Your task to perform on an android device: all mails in gmail Image 0: 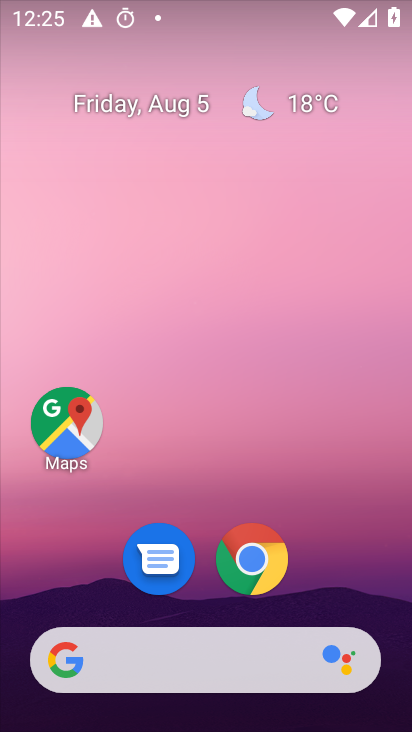
Step 0: drag from (79, 700) to (87, 461)
Your task to perform on an android device: all mails in gmail Image 1: 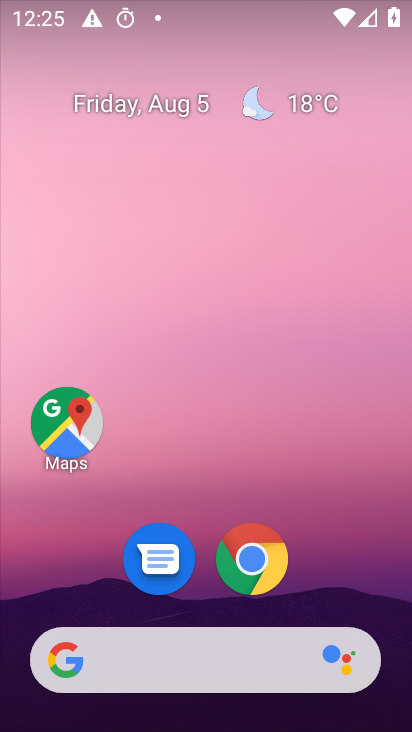
Step 1: drag from (112, 612) to (158, 451)
Your task to perform on an android device: all mails in gmail Image 2: 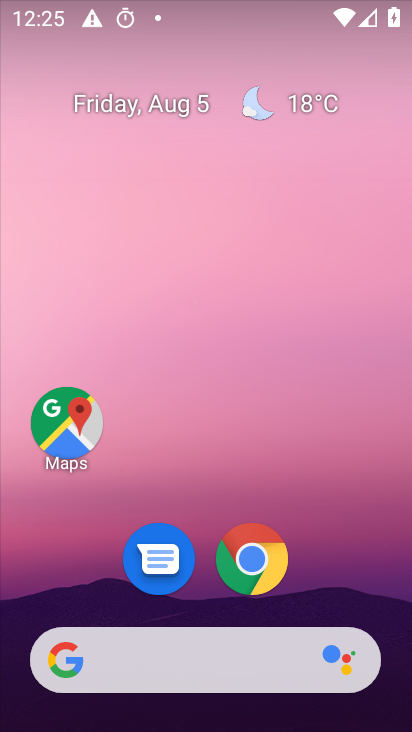
Step 2: click (30, 588)
Your task to perform on an android device: all mails in gmail Image 3: 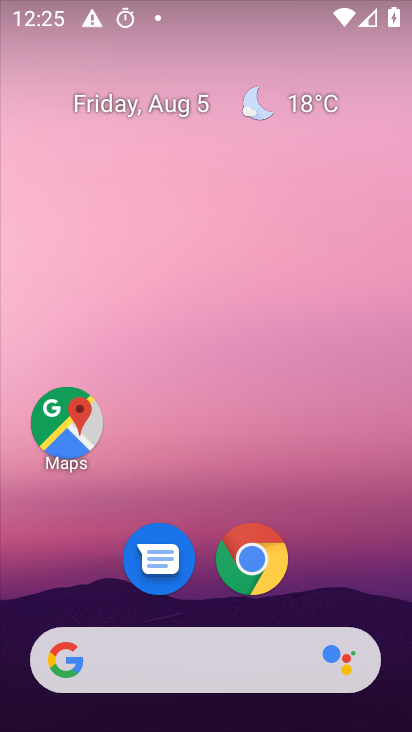
Step 3: drag from (30, 588) to (243, 56)
Your task to perform on an android device: all mails in gmail Image 4: 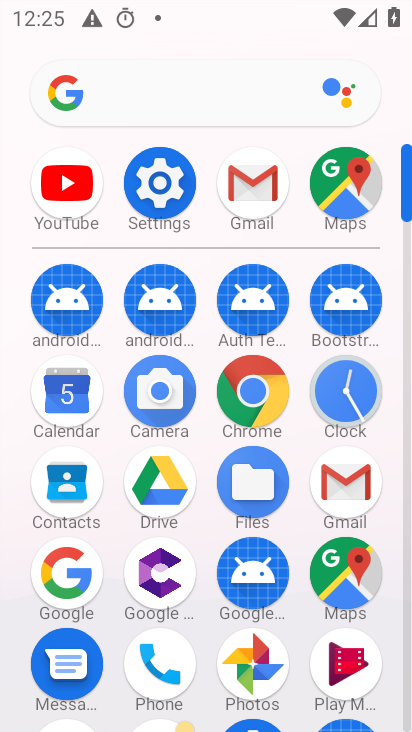
Step 4: click (241, 192)
Your task to perform on an android device: all mails in gmail Image 5: 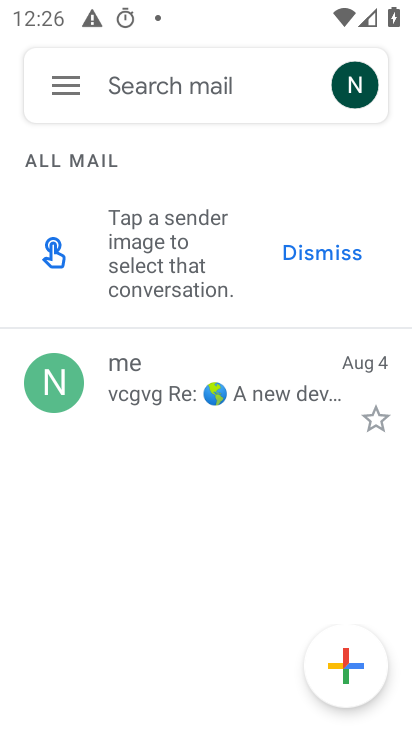
Step 5: click (51, 87)
Your task to perform on an android device: all mails in gmail Image 6: 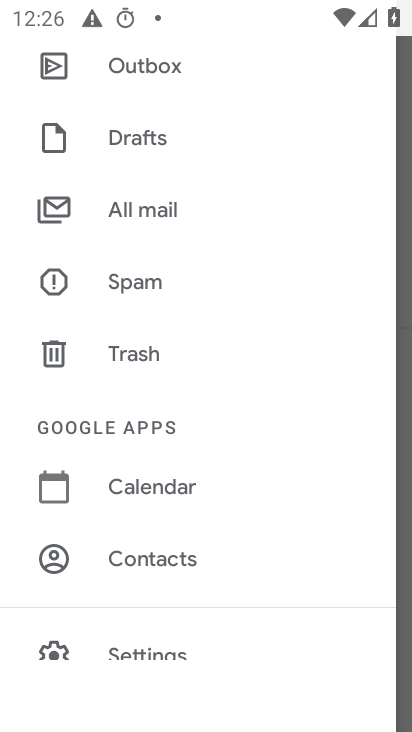
Step 6: click (150, 210)
Your task to perform on an android device: all mails in gmail Image 7: 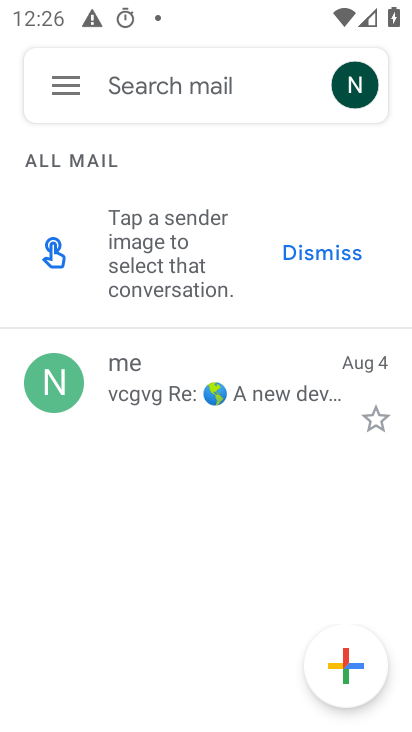
Step 7: task complete